Your task to perform on an android device: check google app version Image 0: 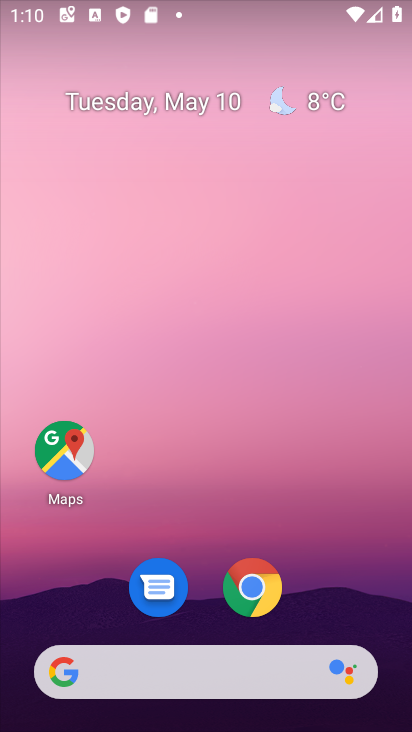
Step 0: click (396, 192)
Your task to perform on an android device: check google app version Image 1: 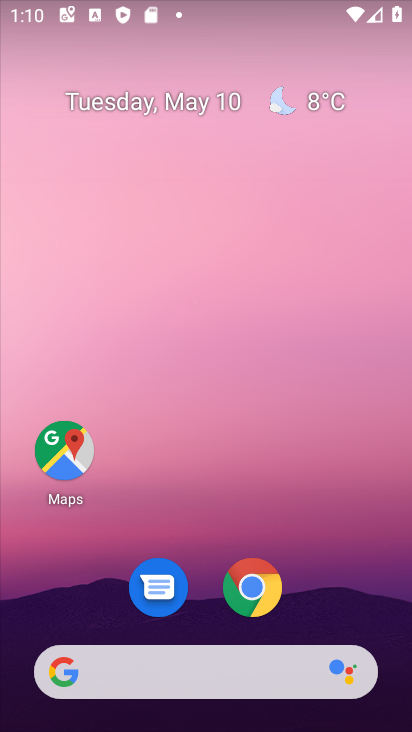
Step 1: click (370, 271)
Your task to perform on an android device: check google app version Image 2: 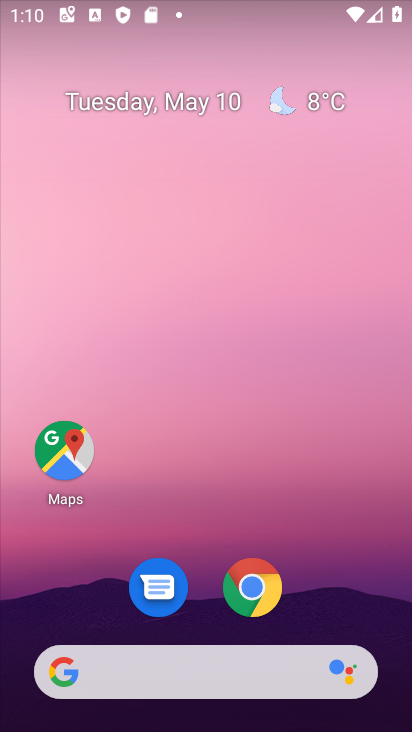
Step 2: drag from (390, 684) to (388, 281)
Your task to perform on an android device: check google app version Image 3: 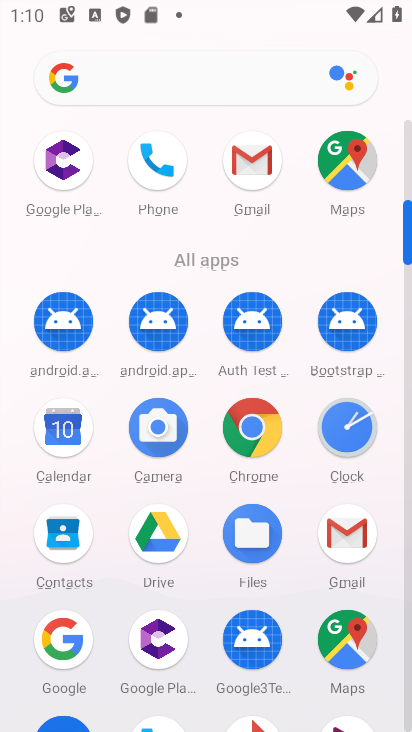
Step 3: click (51, 643)
Your task to perform on an android device: check google app version Image 4: 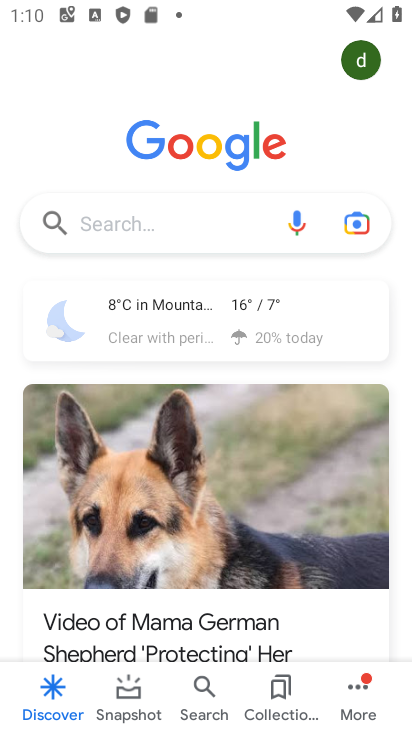
Step 4: click (352, 700)
Your task to perform on an android device: check google app version Image 5: 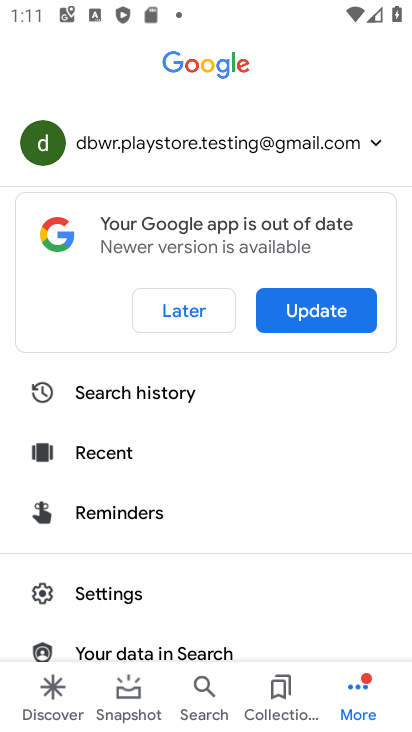
Step 5: click (325, 316)
Your task to perform on an android device: check google app version Image 6: 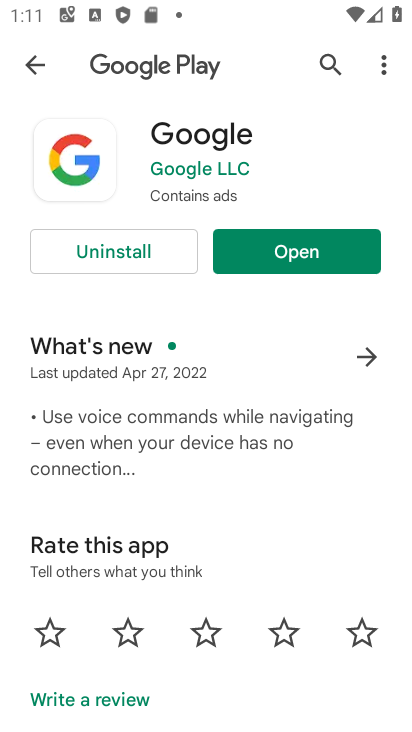
Step 6: click (261, 250)
Your task to perform on an android device: check google app version Image 7: 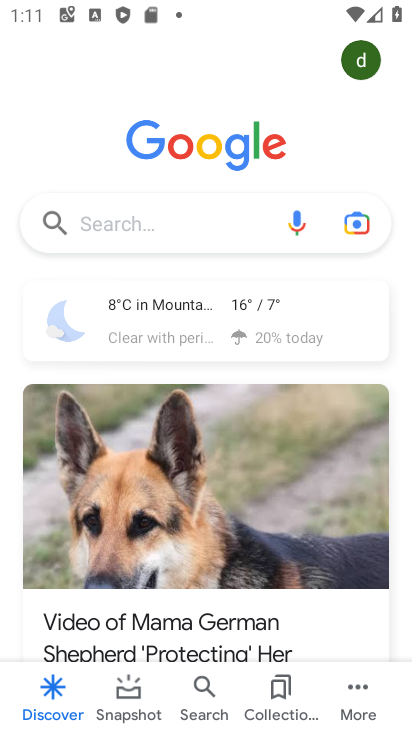
Step 7: click (352, 707)
Your task to perform on an android device: check google app version Image 8: 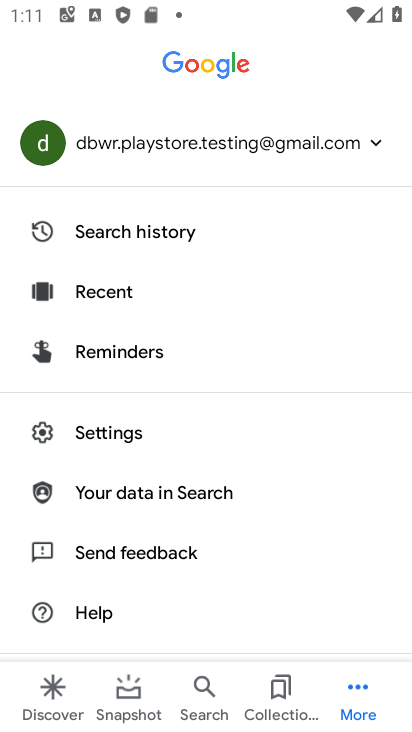
Step 8: click (108, 436)
Your task to perform on an android device: check google app version Image 9: 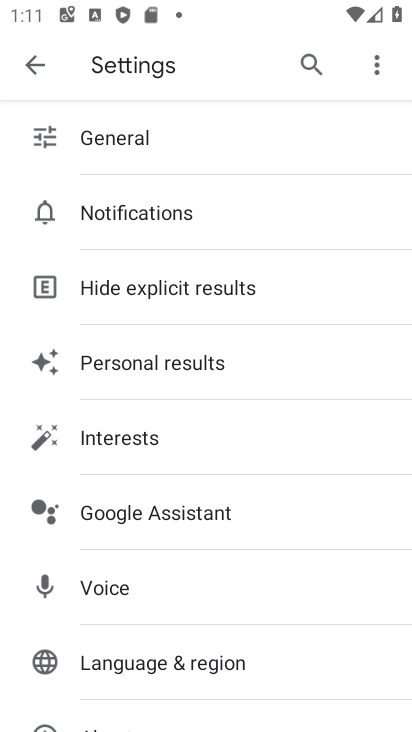
Step 9: drag from (301, 687) to (287, 410)
Your task to perform on an android device: check google app version Image 10: 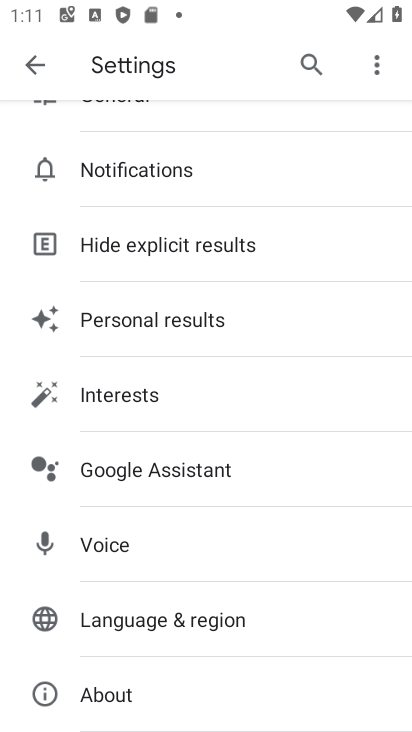
Step 10: click (104, 690)
Your task to perform on an android device: check google app version Image 11: 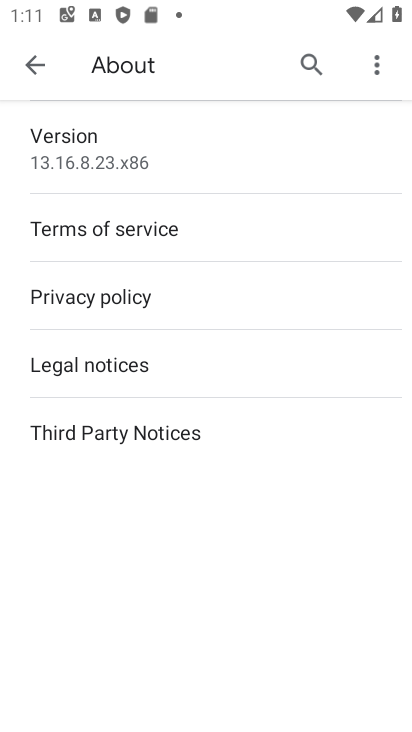
Step 11: click (78, 139)
Your task to perform on an android device: check google app version Image 12: 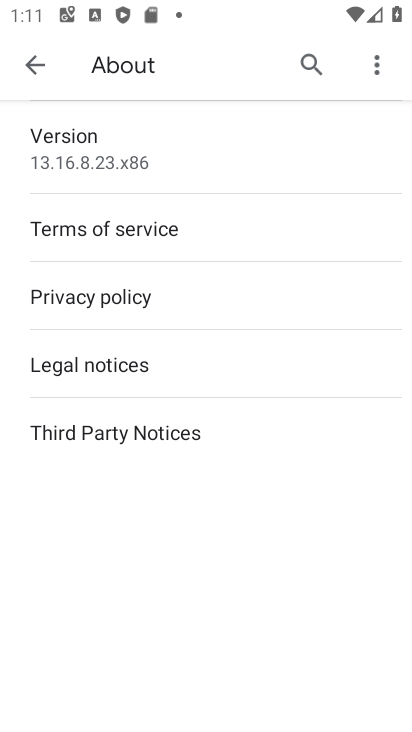
Step 12: task complete